Your task to perform on an android device: open device folders in google photos Image 0: 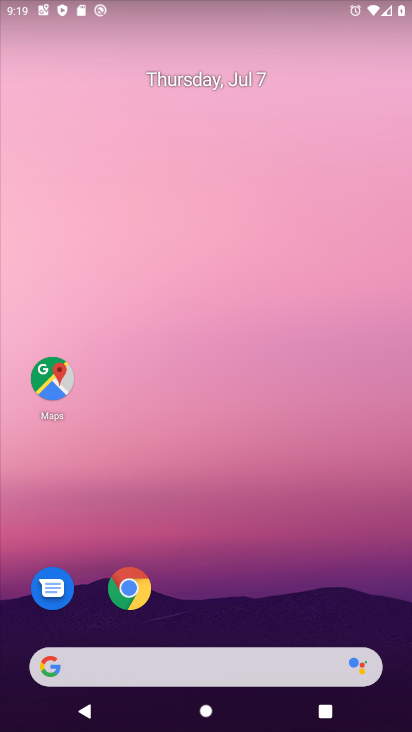
Step 0: press home button
Your task to perform on an android device: open device folders in google photos Image 1: 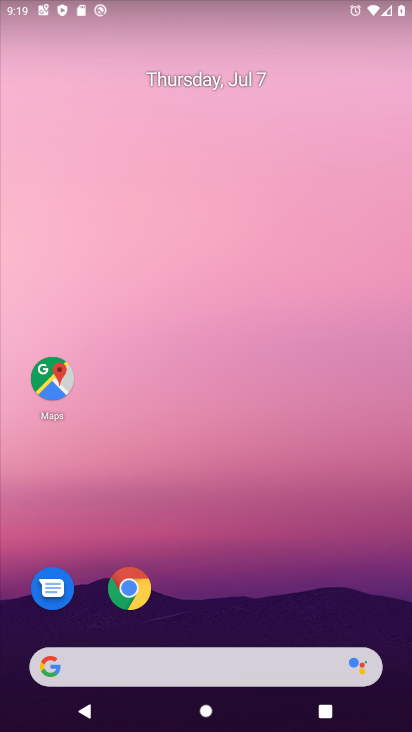
Step 1: press home button
Your task to perform on an android device: open device folders in google photos Image 2: 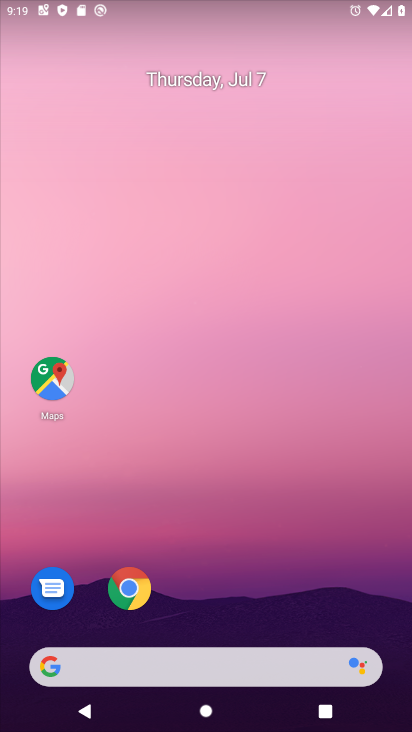
Step 2: press home button
Your task to perform on an android device: open device folders in google photos Image 3: 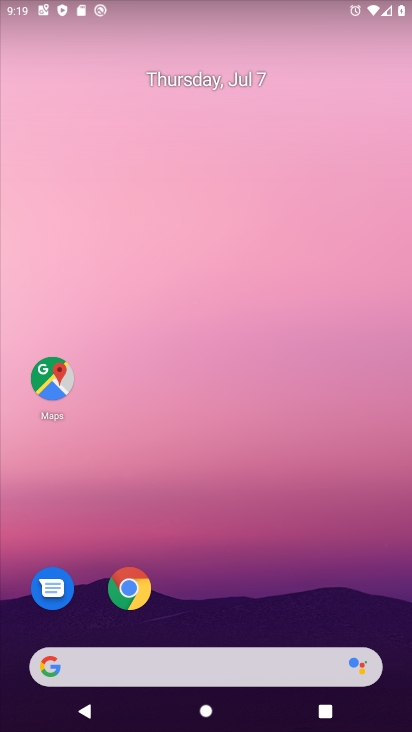
Step 3: drag from (240, 615) to (247, 22)
Your task to perform on an android device: open device folders in google photos Image 4: 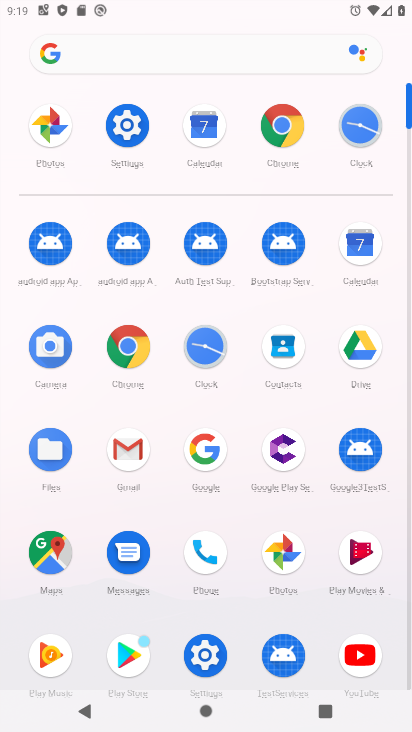
Step 4: click (281, 552)
Your task to perform on an android device: open device folders in google photos Image 5: 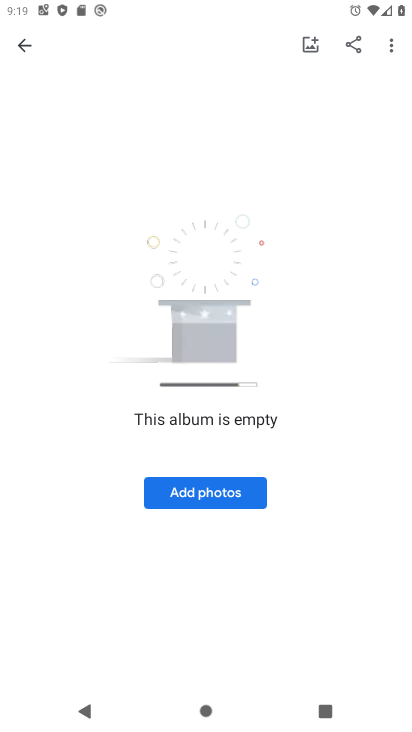
Step 5: click (390, 44)
Your task to perform on an android device: open device folders in google photos Image 6: 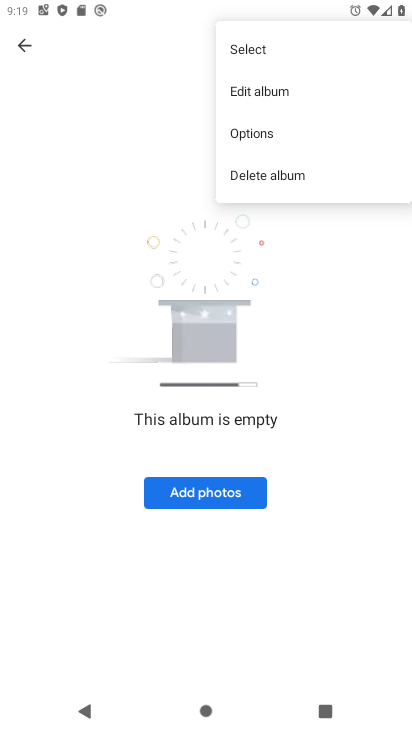
Step 6: click (74, 143)
Your task to perform on an android device: open device folders in google photos Image 7: 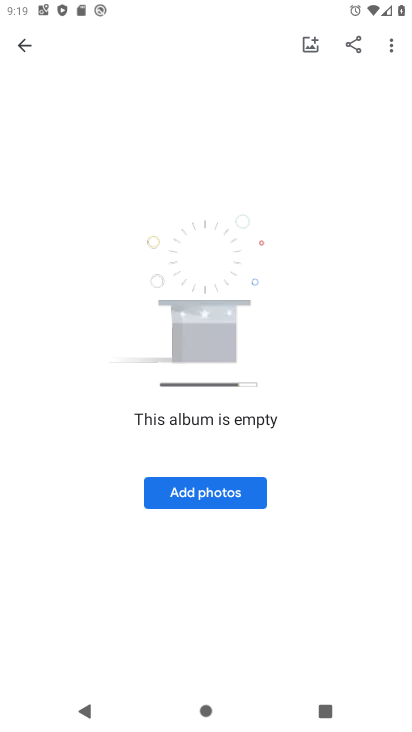
Step 7: click (27, 38)
Your task to perform on an android device: open device folders in google photos Image 8: 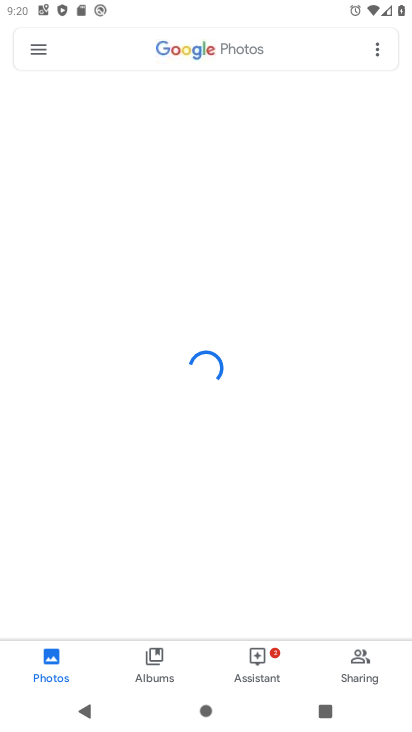
Step 8: click (150, 656)
Your task to perform on an android device: open device folders in google photos Image 9: 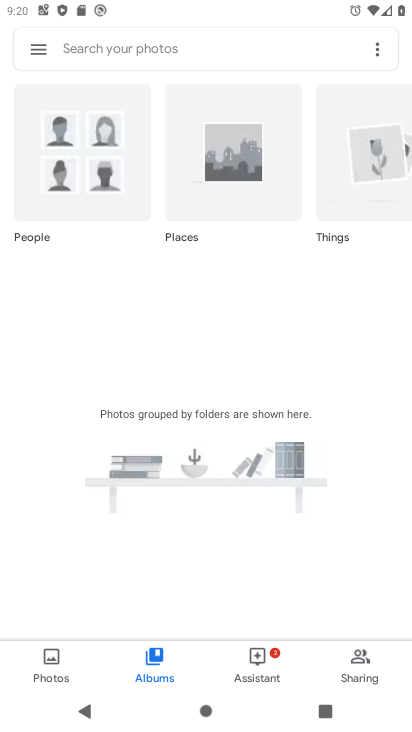
Step 9: click (379, 49)
Your task to perform on an android device: open device folders in google photos Image 10: 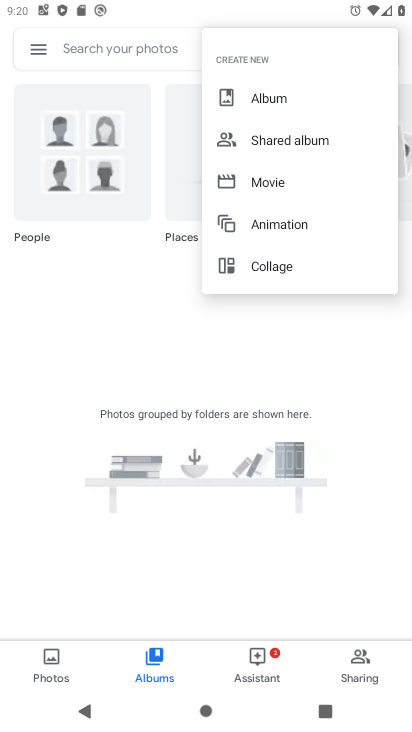
Step 10: click (259, 94)
Your task to perform on an android device: open device folders in google photos Image 11: 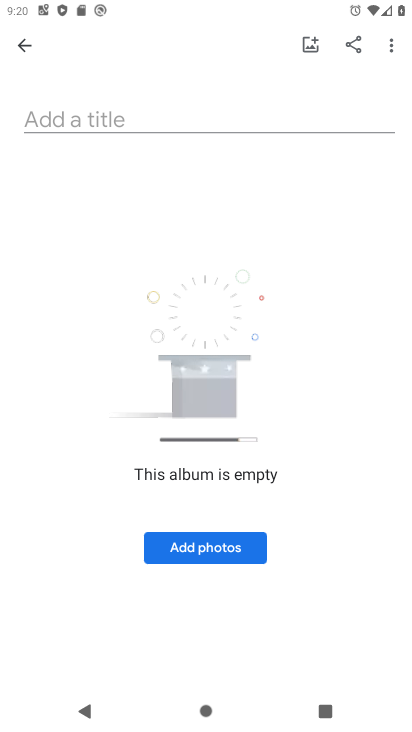
Step 11: click (210, 555)
Your task to perform on an android device: open device folders in google photos Image 12: 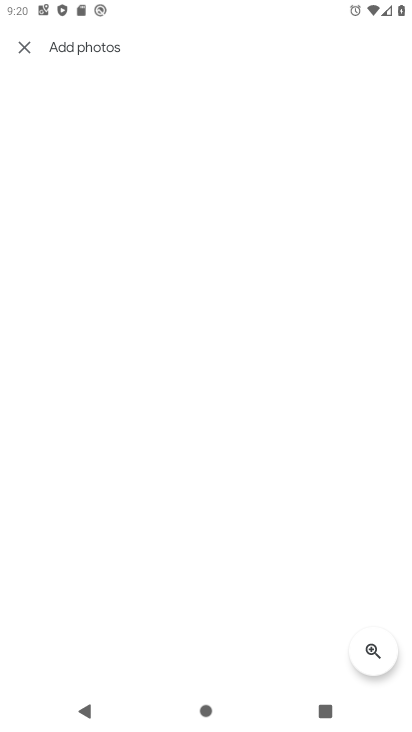
Step 12: click (23, 52)
Your task to perform on an android device: open device folders in google photos Image 13: 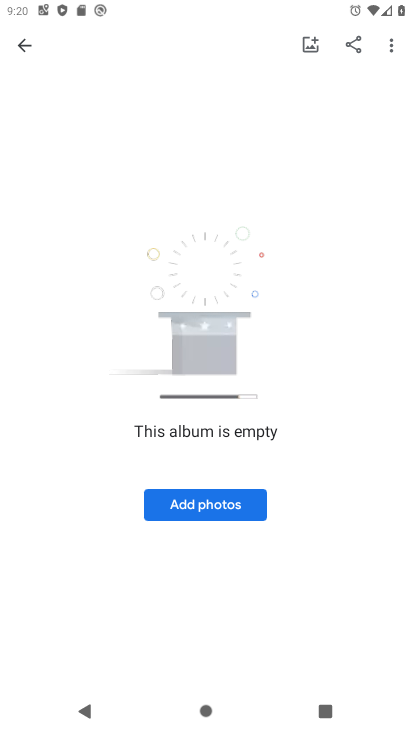
Step 13: click (21, 49)
Your task to perform on an android device: open device folders in google photos Image 14: 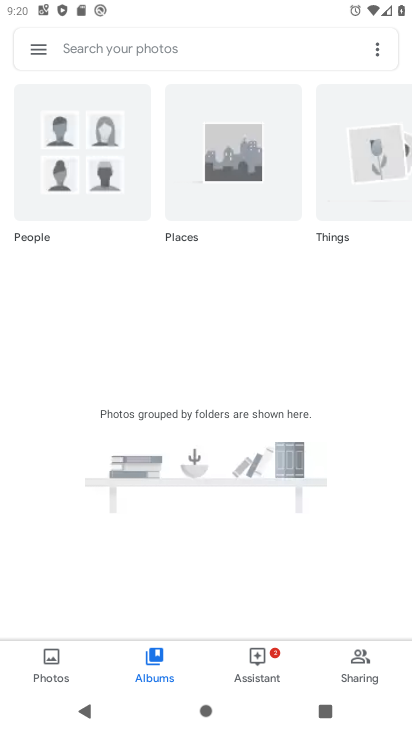
Step 14: click (34, 46)
Your task to perform on an android device: open device folders in google photos Image 15: 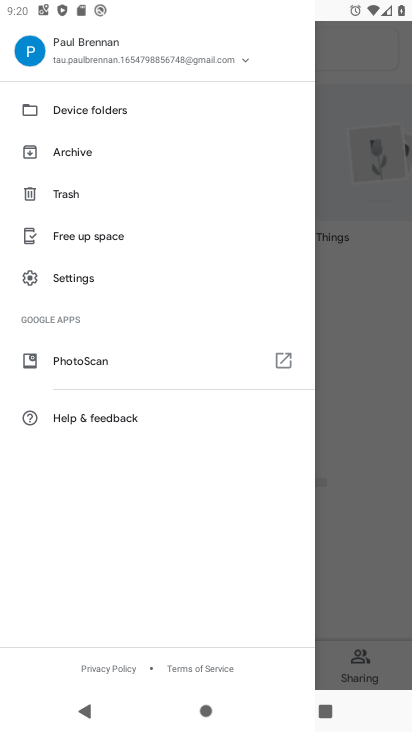
Step 15: click (81, 108)
Your task to perform on an android device: open device folders in google photos Image 16: 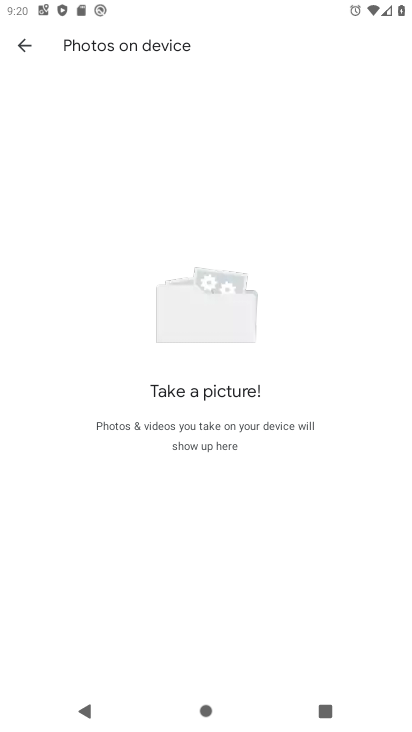
Step 16: task complete